Your task to perform on an android device: turn on the 24-hour format for clock Image 0: 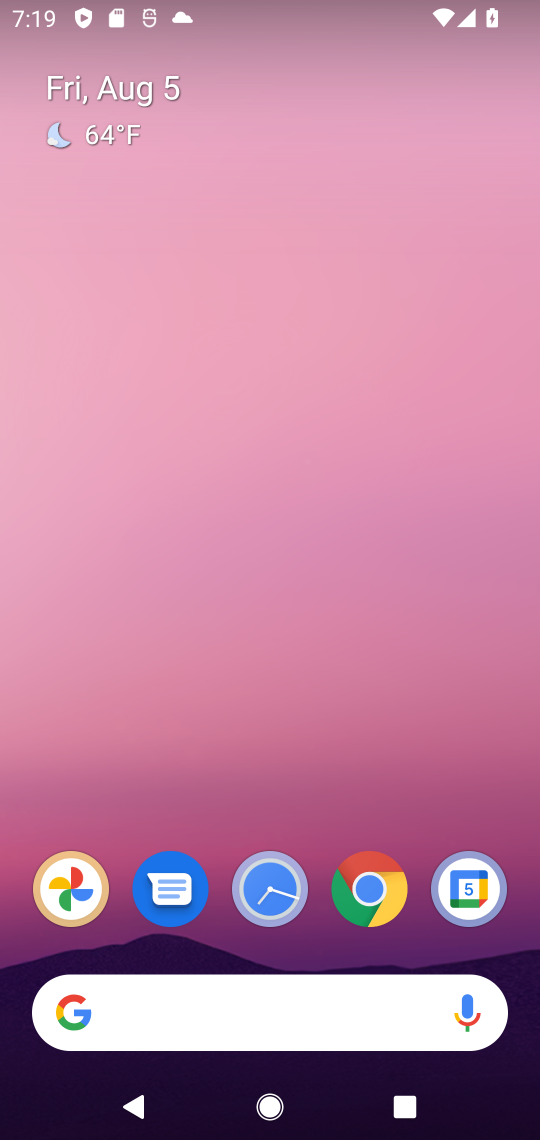
Step 0: drag from (283, 863) to (245, 186)
Your task to perform on an android device: turn on the 24-hour format for clock Image 1: 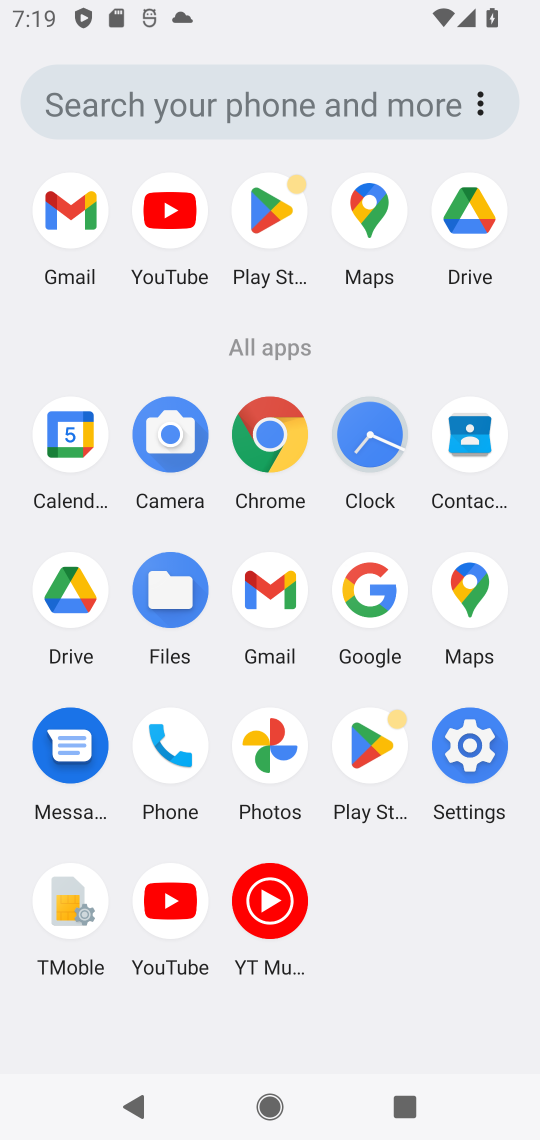
Step 1: click (379, 448)
Your task to perform on an android device: turn on the 24-hour format for clock Image 2: 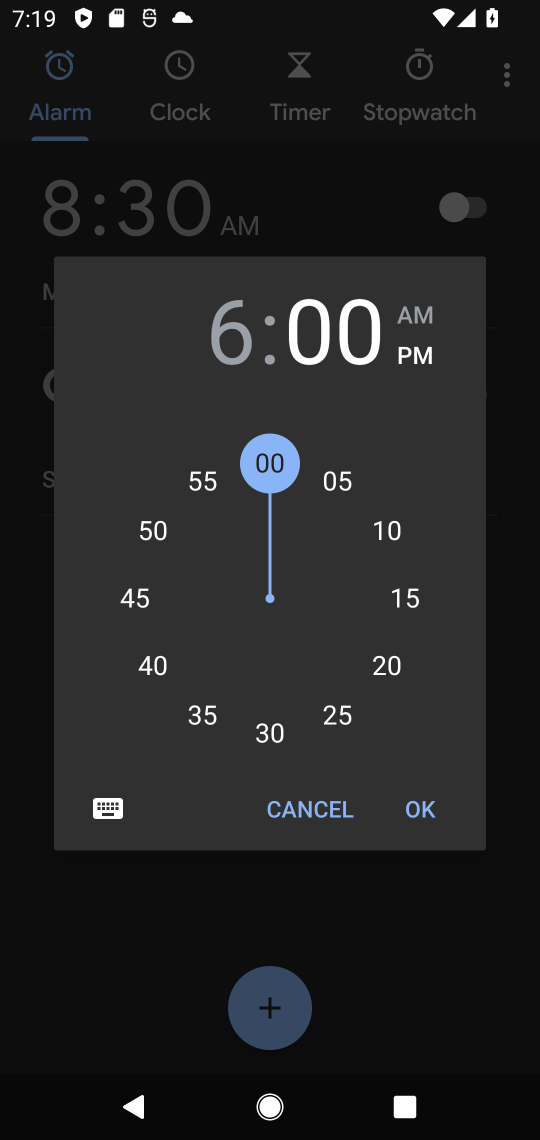
Step 2: click (494, 193)
Your task to perform on an android device: turn on the 24-hour format for clock Image 3: 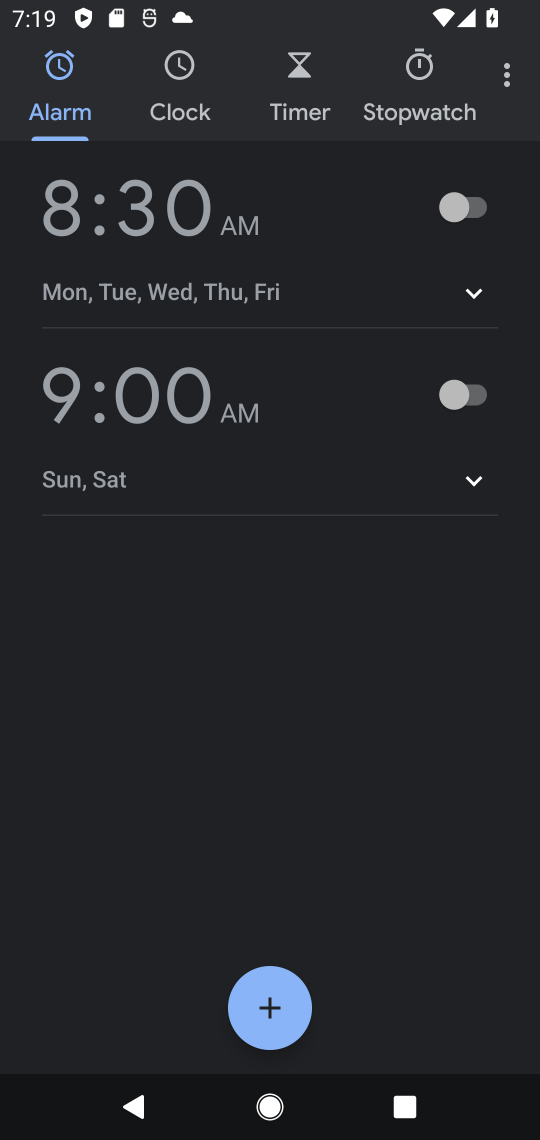
Step 3: click (494, 71)
Your task to perform on an android device: turn on the 24-hour format for clock Image 4: 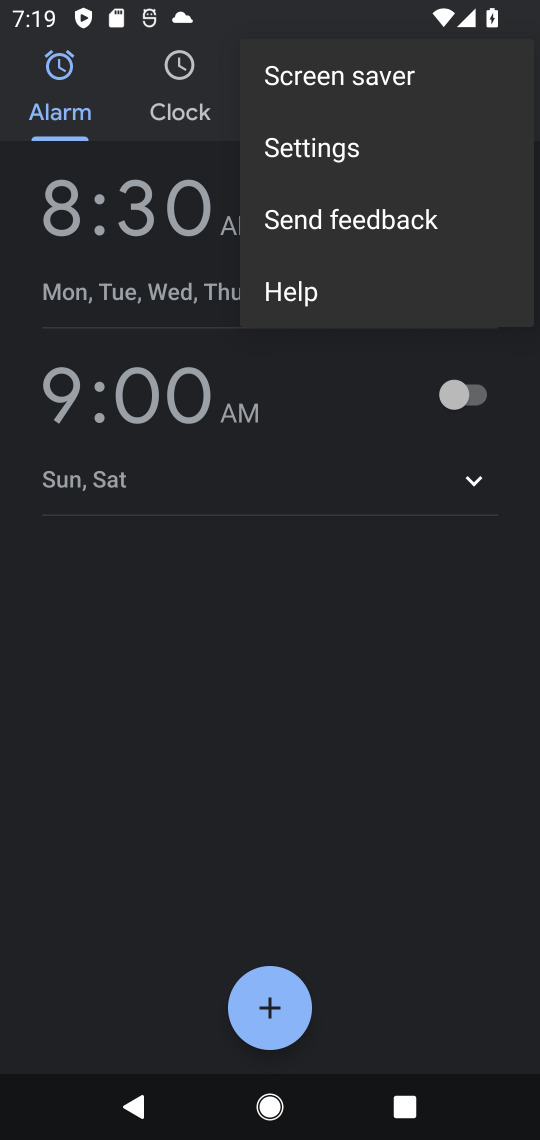
Step 4: click (332, 140)
Your task to perform on an android device: turn on the 24-hour format for clock Image 5: 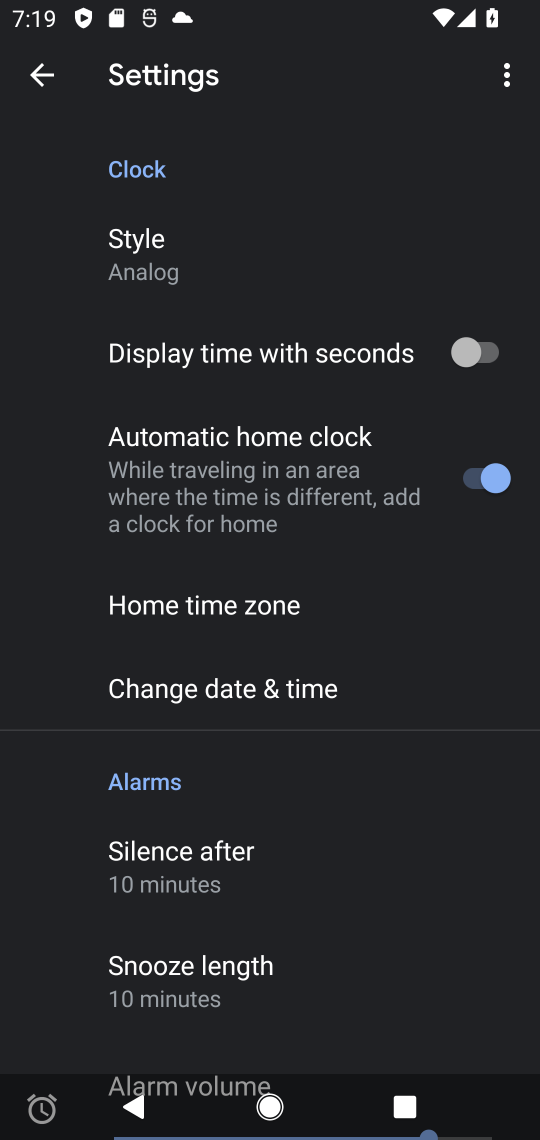
Step 5: click (180, 716)
Your task to perform on an android device: turn on the 24-hour format for clock Image 6: 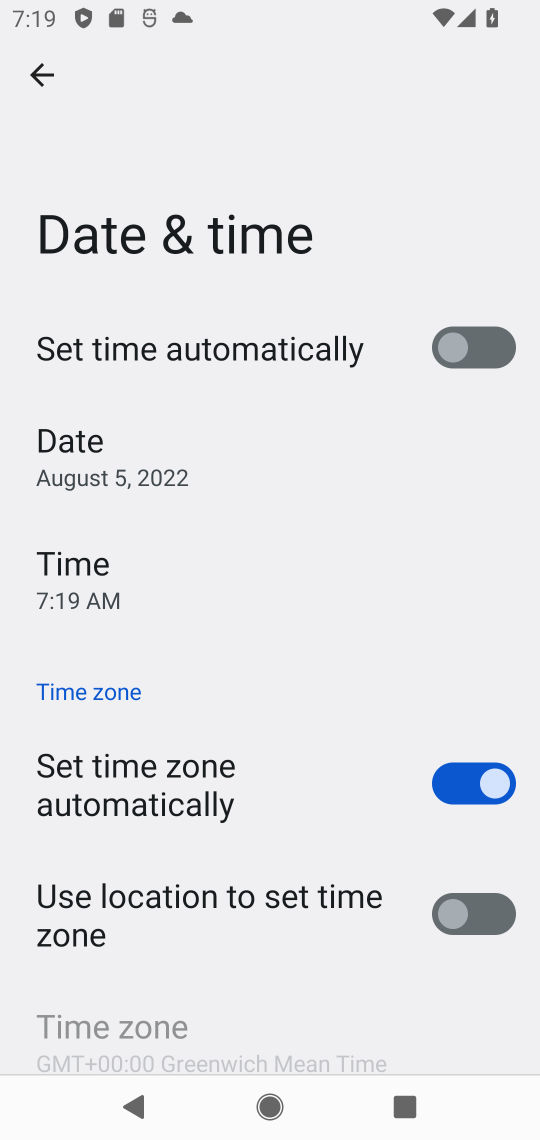
Step 6: drag from (104, 993) to (79, 471)
Your task to perform on an android device: turn on the 24-hour format for clock Image 7: 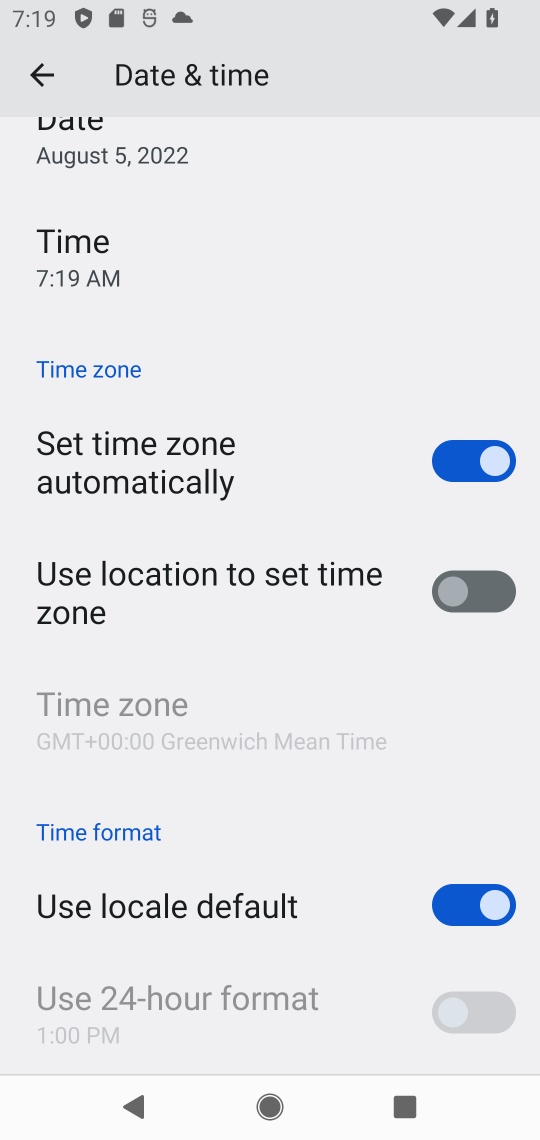
Step 7: click (470, 914)
Your task to perform on an android device: turn on the 24-hour format for clock Image 8: 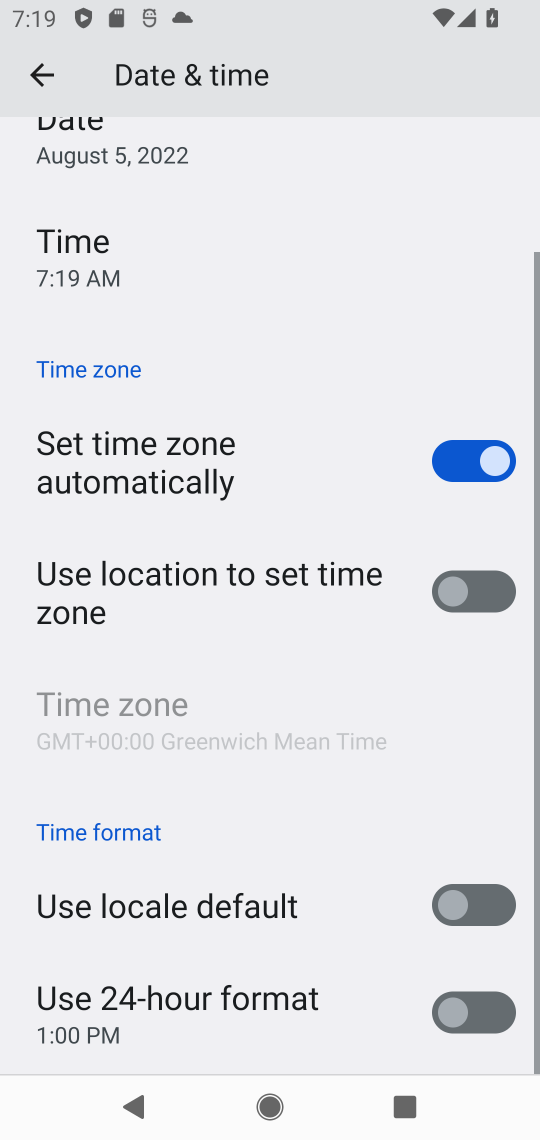
Step 8: click (491, 997)
Your task to perform on an android device: turn on the 24-hour format for clock Image 9: 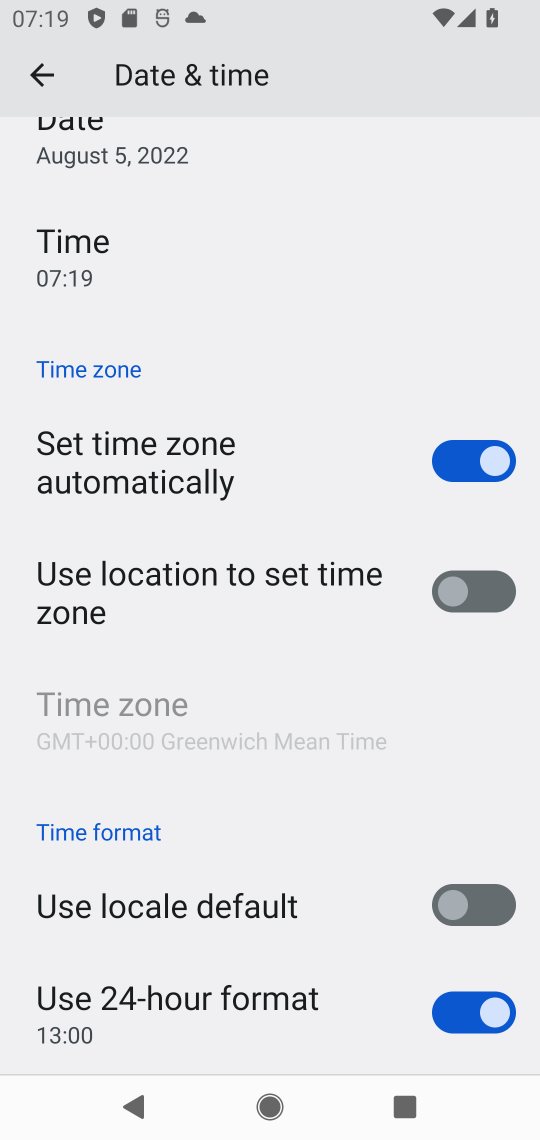
Step 9: task complete